Your task to perform on an android device: What's on my calendar today? Image 0: 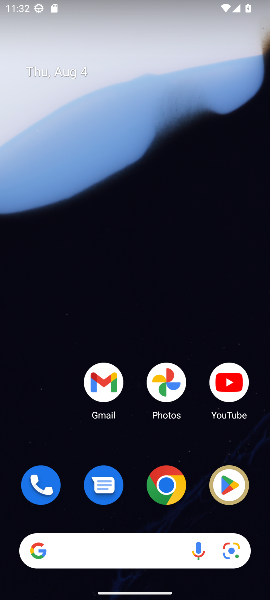
Step 0: drag from (132, 523) to (127, 64)
Your task to perform on an android device: What's on my calendar today? Image 1: 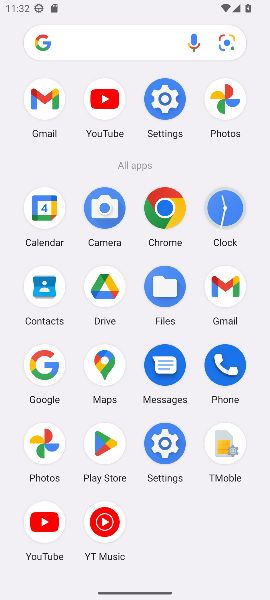
Step 1: click (41, 206)
Your task to perform on an android device: What's on my calendar today? Image 2: 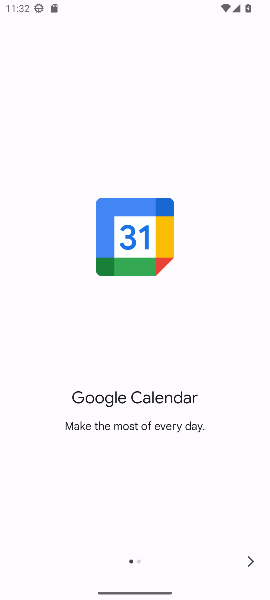
Step 2: click (251, 560)
Your task to perform on an android device: What's on my calendar today? Image 3: 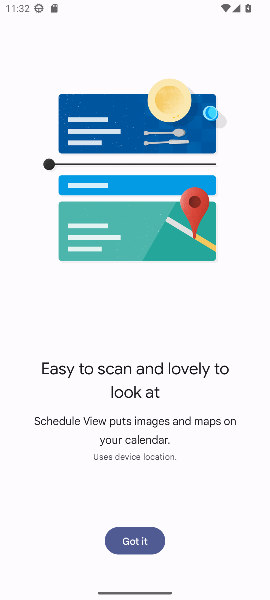
Step 3: click (145, 540)
Your task to perform on an android device: What's on my calendar today? Image 4: 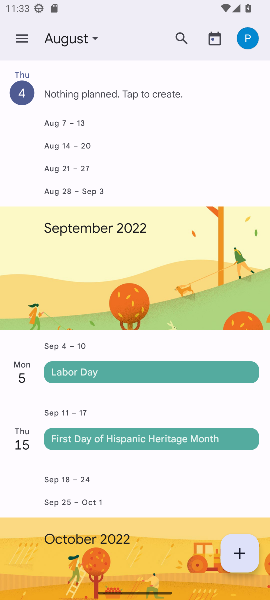
Step 4: click (94, 38)
Your task to perform on an android device: What's on my calendar today? Image 5: 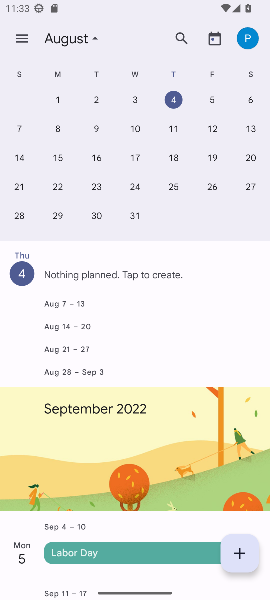
Step 5: click (171, 94)
Your task to perform on an android device: What's on my calendar today? Image 6: 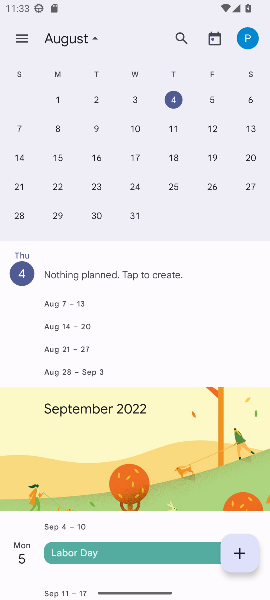
Step 6: task complete